Your task to perform on an android device: turn pop-ups off in chrome Image 0: 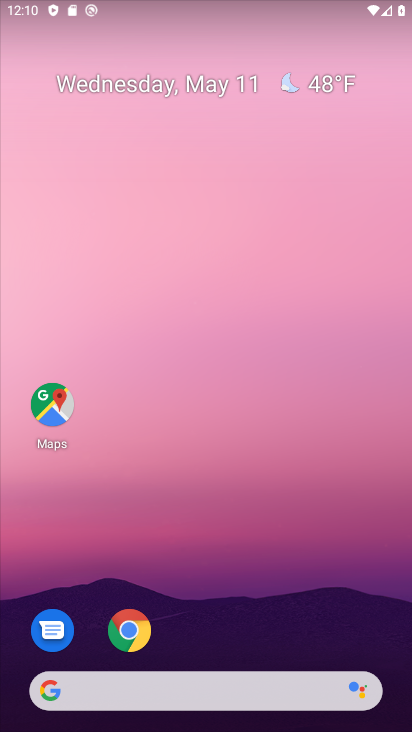
Step 0: click (137, 617)
Your task to perform on an android device: turn pop-ups off in chrome Image 1: 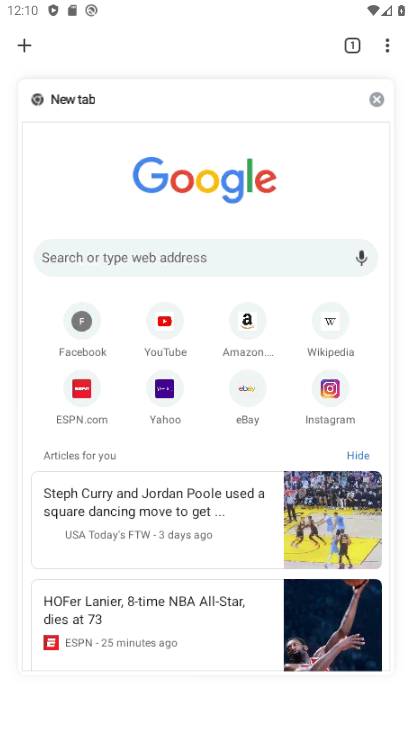
Step 1: click (388, 48)
Your task to perform on an android device: turn pop-ups off in chrome Image 2: 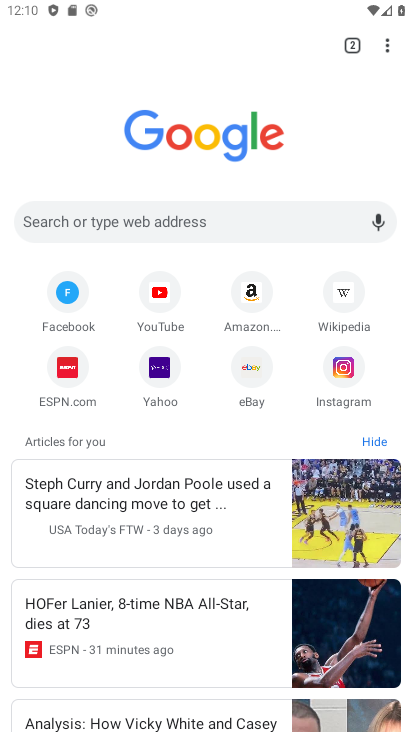
Step 2: drag from (388, 48) to (232, 384)
Your task to perform on an android device: turn pop-ups off in chrome Image 3: 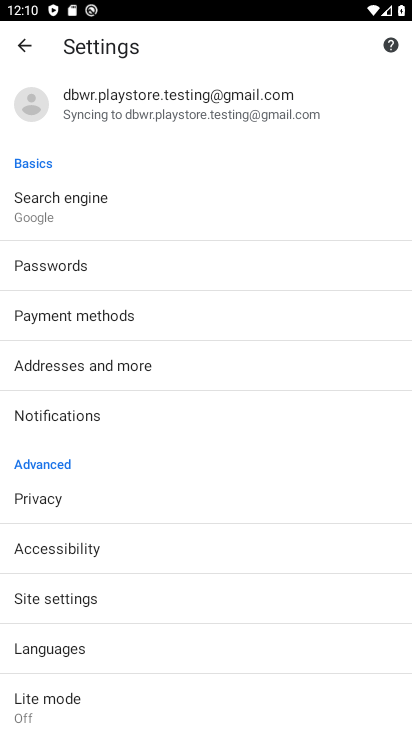
Step 3: click (54, 594)
Your task to perform on an android device: turn pop-ups off in chrome Image 4: 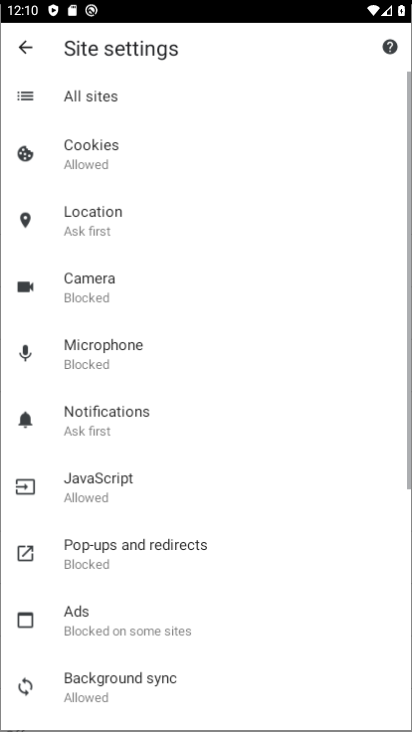
Step 4: drag from (55, 593) to (74, 264)
Your task to perform on an android device: turn pop-ups off in chrome Image 5: 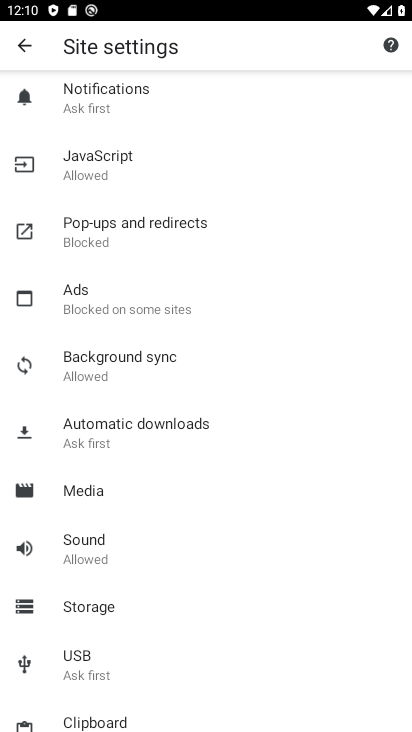
Step 5: click (90, 234)
Your task to perform on an android device: turn pop-ups off in chrome Image 6: 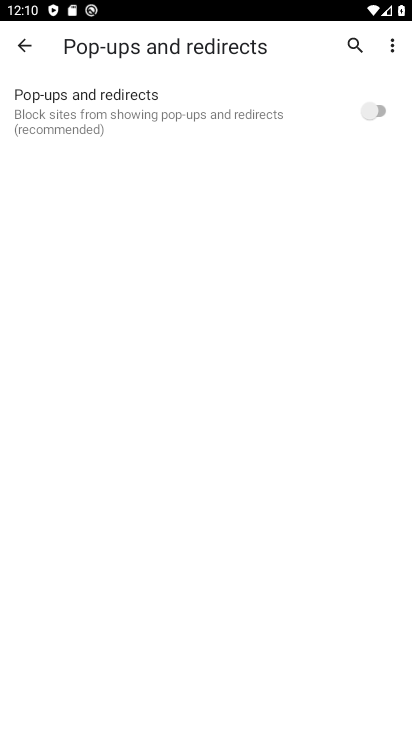
Step 6: task complete